Your task to perform on an android device: Open settings on Google Maps Image 0: 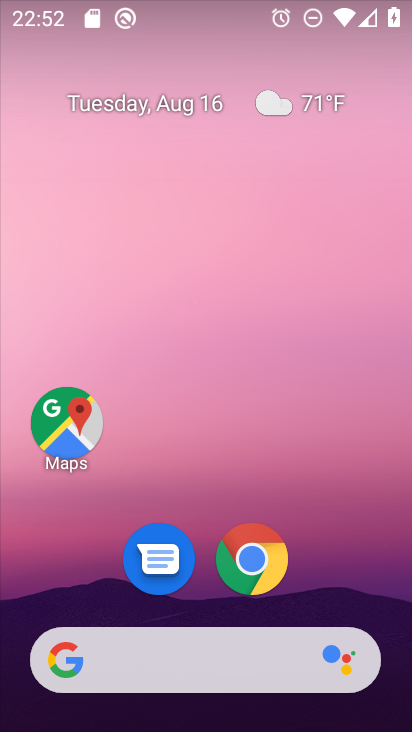
Step 0: drag from (152, 663) to (190, 92)
Your task to perform on an android device: Open settings on Google Maps Image 1: 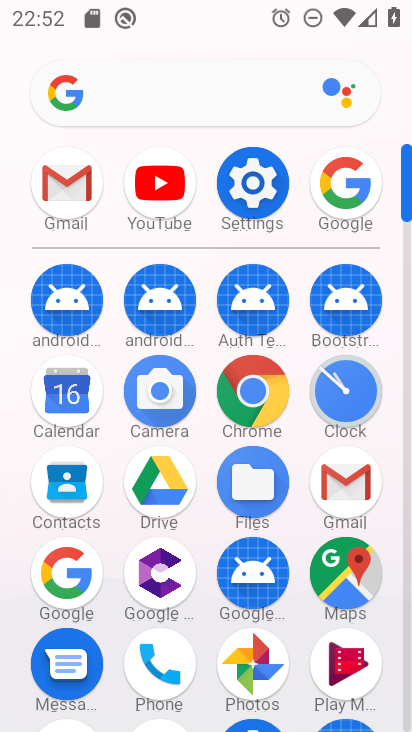
Step 1: press home button
Your task to perform on an android device: Open settings on Google Maps Image 2: 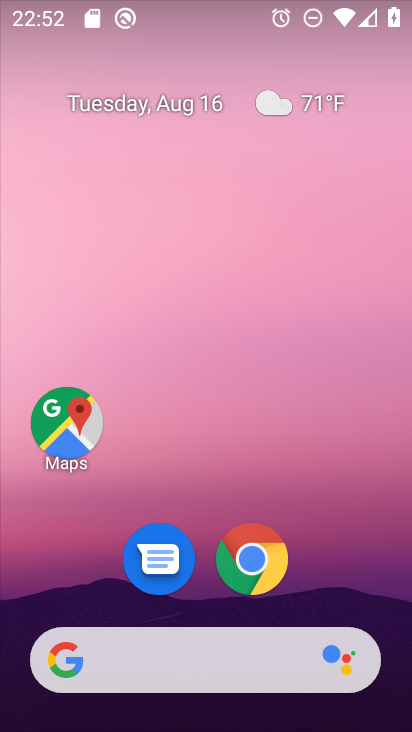
Step 2: click (67, 429)
Your task to perform on an android device: Open settings on Google Maps Image 3: 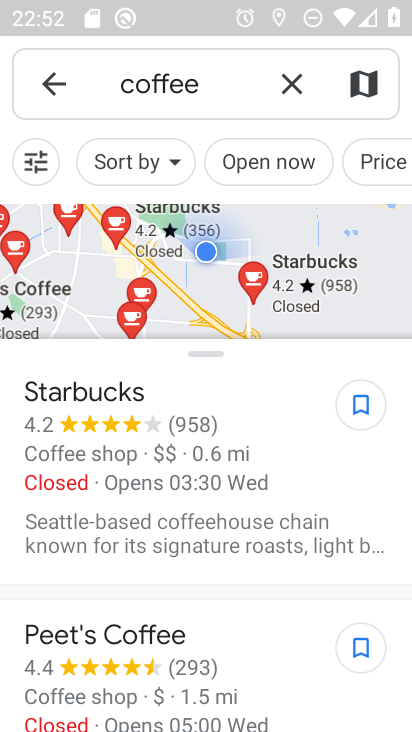
Step 3: press back button
Your task to perform on an android device: Open settings on Google Maps Image 4: 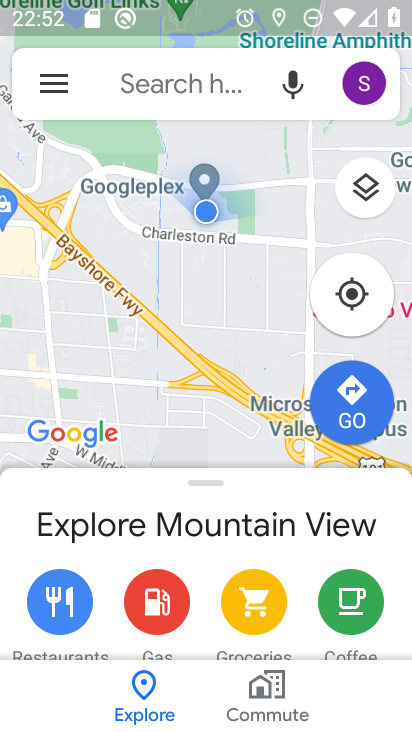
Step 4: click (52, 81)
Your task to perform on an android device: Open settings on Google Maps Image 5: 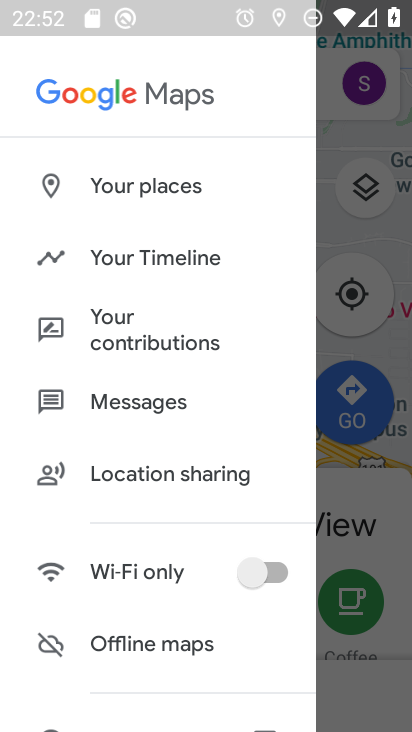
Step 5: drag from (139, 527) to (224, 413)
Your task to perform on an android device: Open settings on Google Maps Image 6: 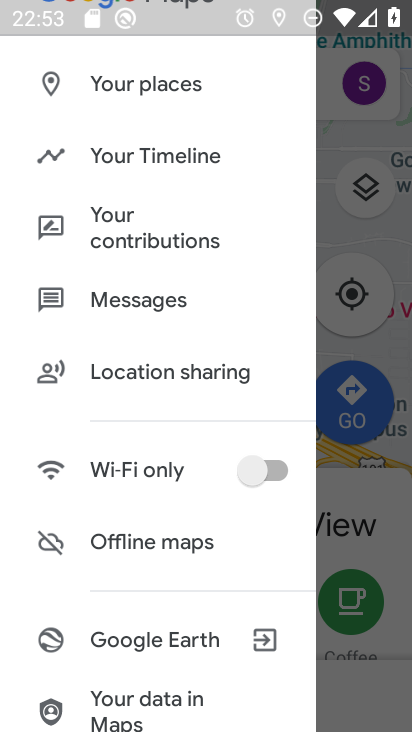
Step 6: drag from (146, 586) to (223, 486)
Your task to perform on an android device: Open settings on Google Maps Image 7: 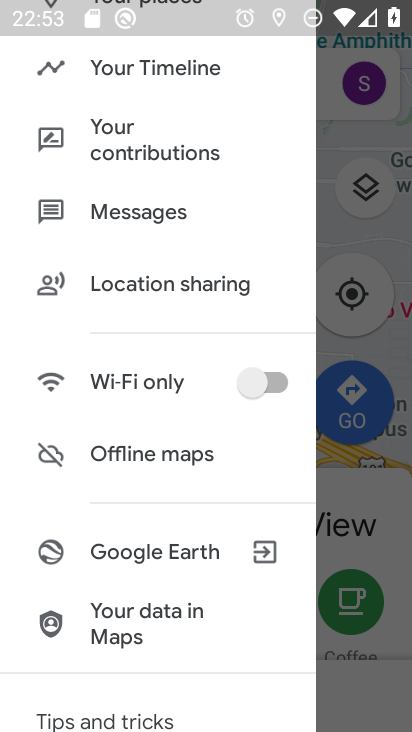
Step 7: drag from (120, 676) to (155, 456)
Your task to perform on an android device: Open settings on Google Maps Image 8: 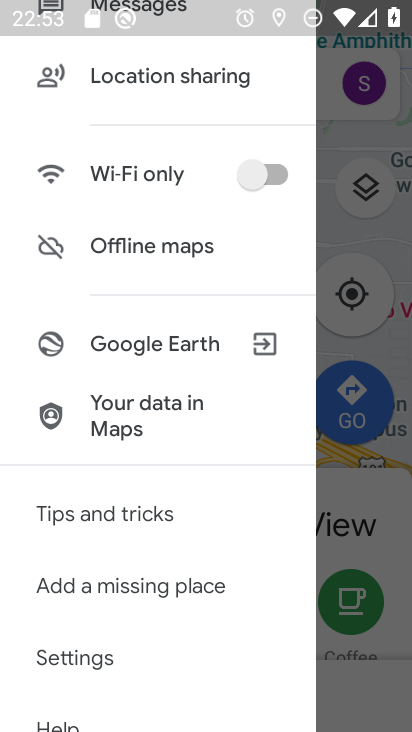
Step 8: drag from (94, 618) to (153, 514)
Your task to perform on an android device: Open settings on Google Maps Image 9: 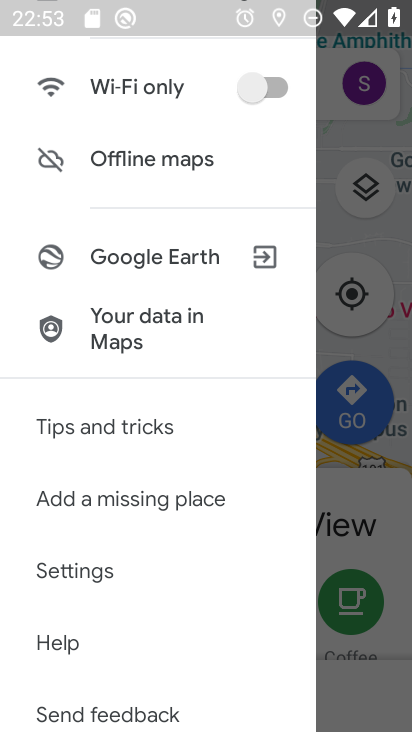
Step 9: click (87, 582)
Your task to perform on an android device: Open settings on Google Maps Image 10: 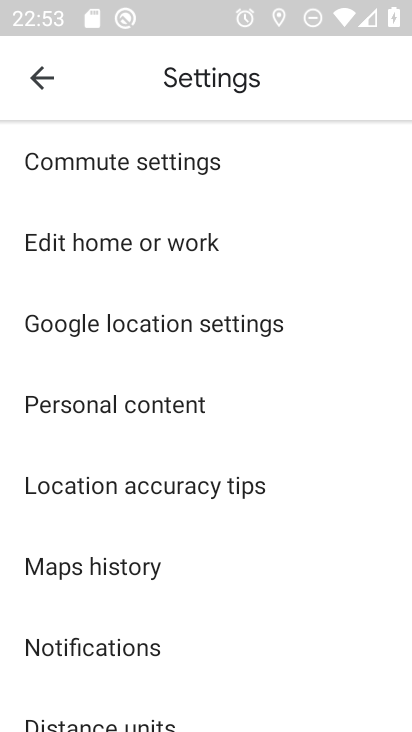
Step 10: task complete